Your task to perform on an android device: turn on location history Image 0: 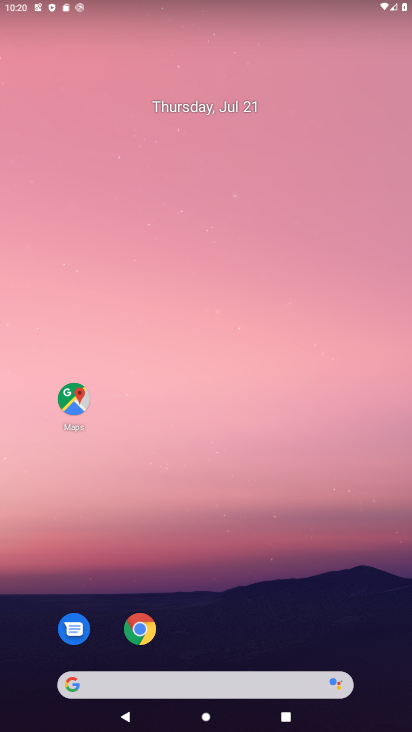
Step 0: drag from (178, 656) to (226, 84)
Your task to perform on an android device: turn on location history Image 1: 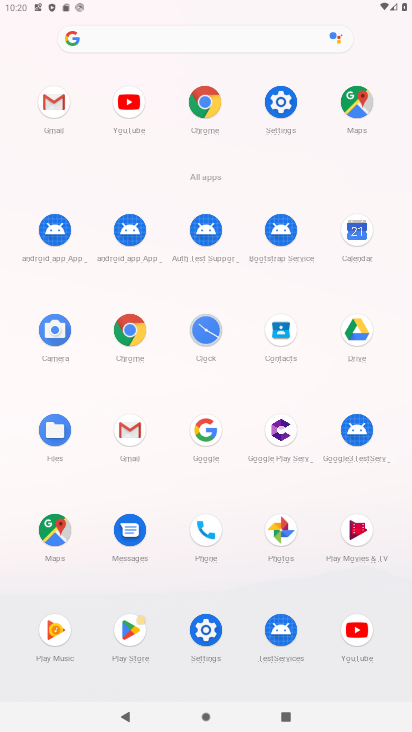
Step 1: click (204, 640)
Your task to perform on an android device: turn on location history Image 2: 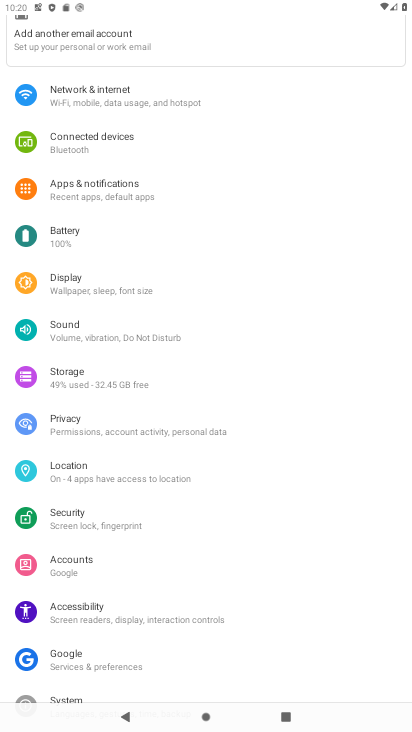
Step 2: click (110, 469)
Your task to perform on an android device: turn on location history Image 3: 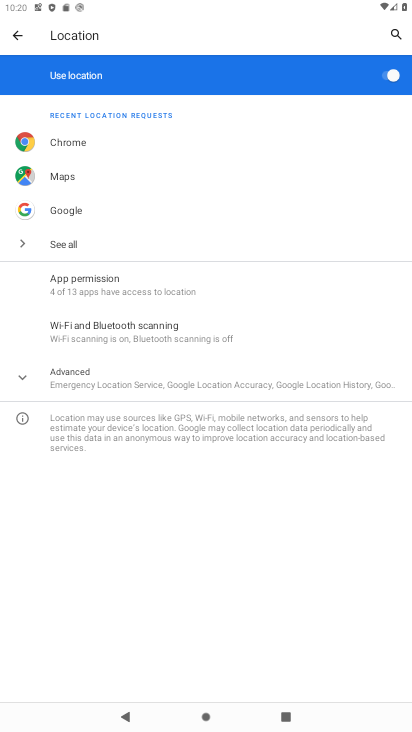
Step 3: click (91, 390)
Your task to perform on an android device: turn on location history Image 4: 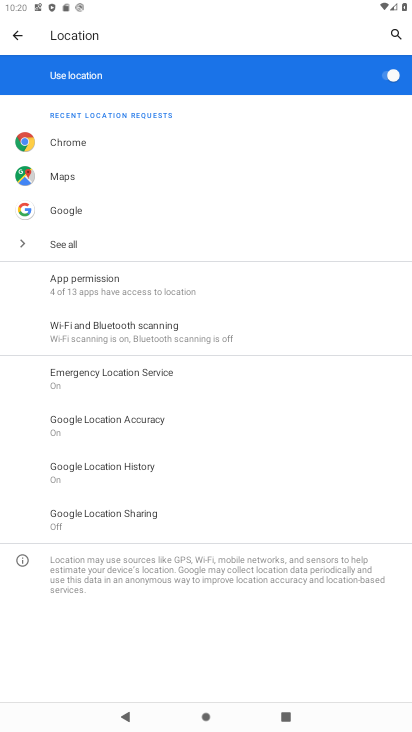
Step 4: click (124, 466)
Your task to perform on an android device: turn on location history Image 5: 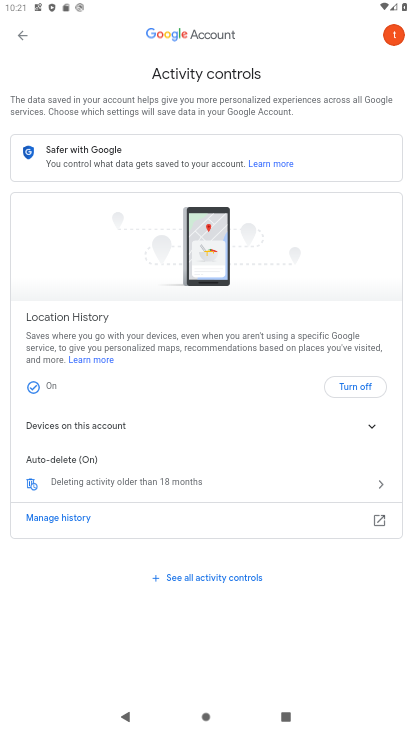
Step 5: task complete